Your task to perform on an android device: find photos in the google photos app Image 0: 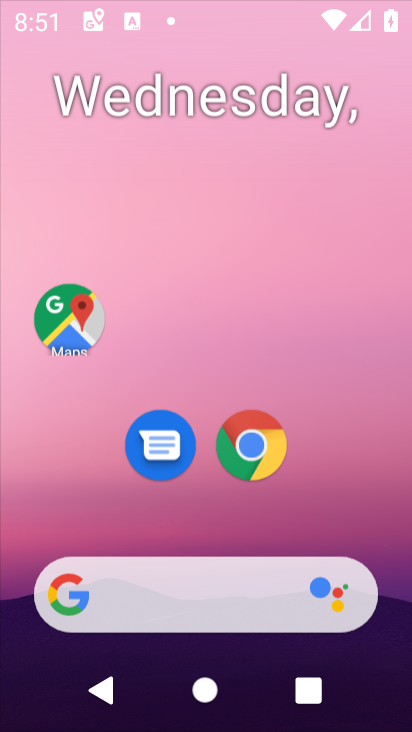
Step 0: press home button
Your task to perform on an android device: find photos in the google photos app Image 1: 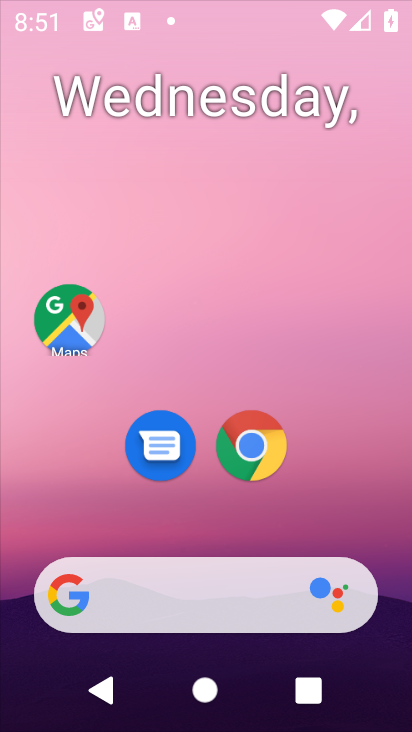
Step 1: drag from (357, 500) to (284, 13)
Your task to perform on an android device: find photos in the google photos app Image 2: 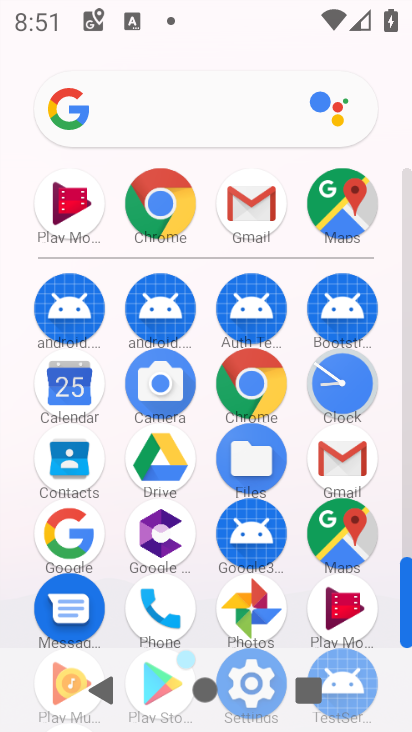
Step 2: drag from (367, 522) to (334, 59)
Your task to perform on an android device: find photos in the google photos app Image 3: 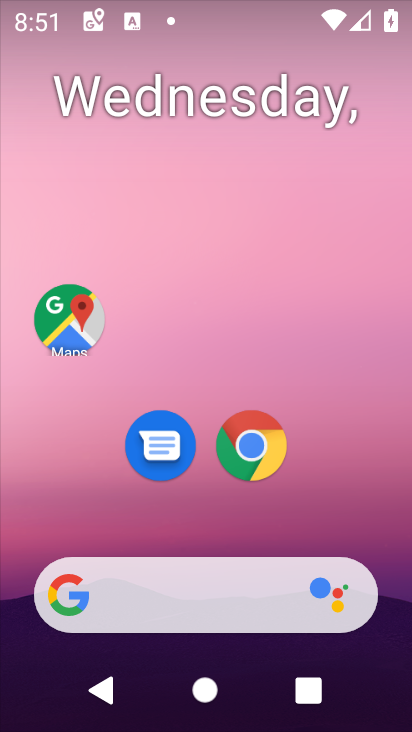
Step 3: drag from (374, 656) to (290, 17)
Your task to perform on an android device: find photos in the google photos app Image 4: 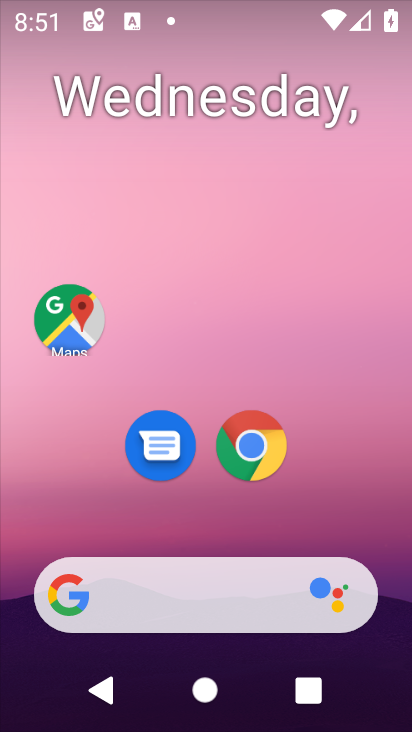
Step 4: drag from (358, 667) to (282, 86)
Your task to perform on an android device: find photos in the google photos app Image 5: 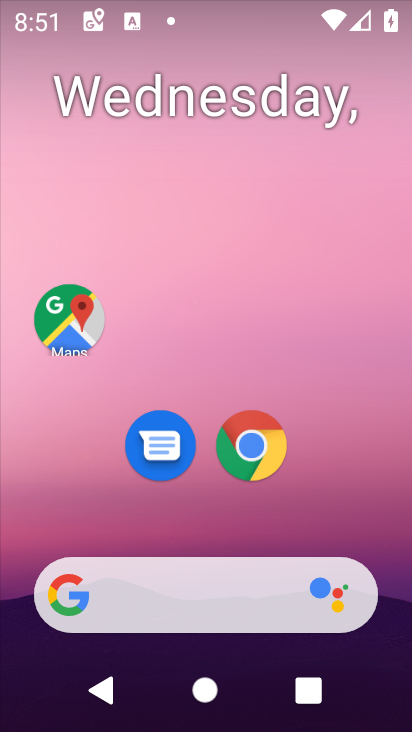
Step 5: drag from (310, 528) to (250, 4)
Your task to perform on an android device: find photos in the google photos app Image 6: 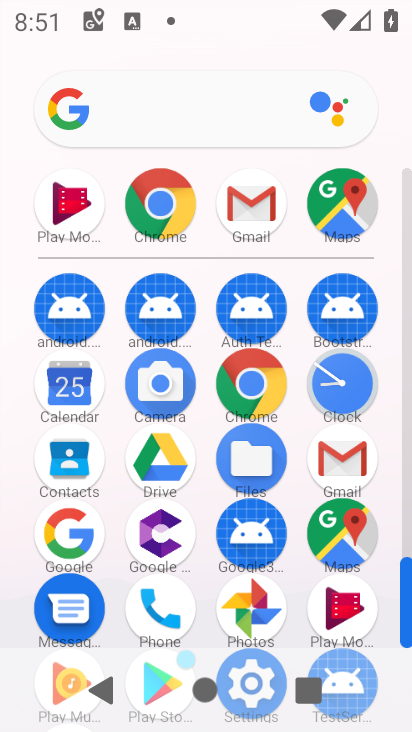
Step 6: click (249, 605)
Your task to perform on an android device: find photos in the google photos app Image 7: 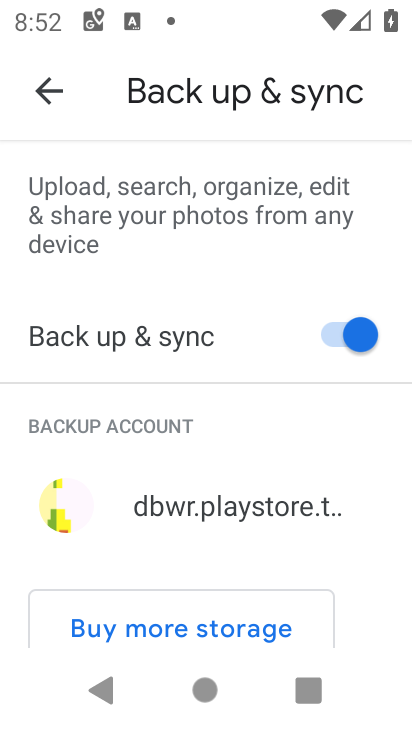
Step 7: click (38, 82)
Your task to perform on an android device: find photos in the google photos app Image 8: 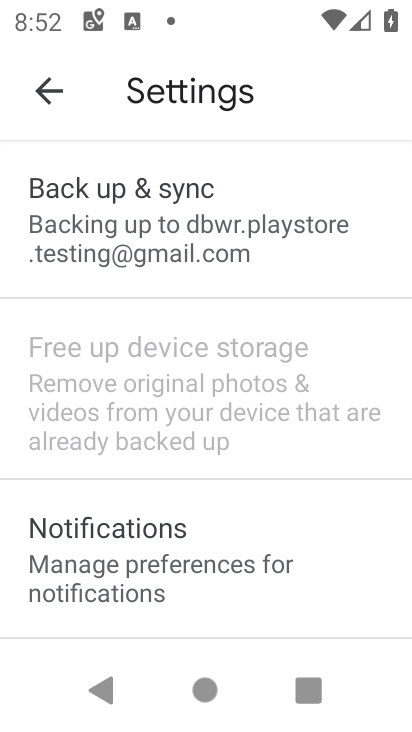
Step 8: click (63, 90)
Your task to perform on an android device: find photos in the google photos app Image 9: 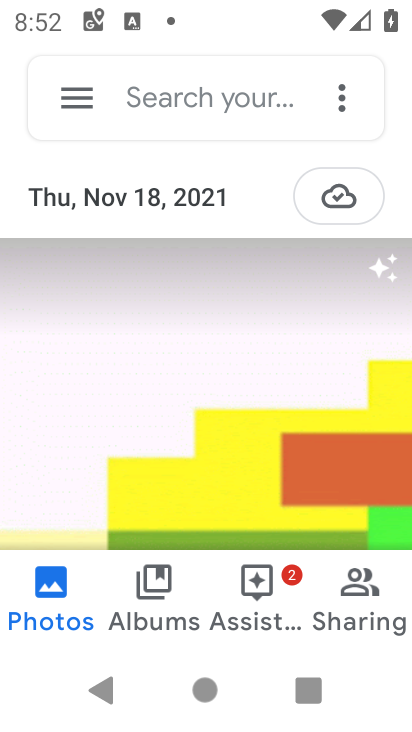
Step 9: task complete